Your task to perform on an android device: Open battery settings Image 0: 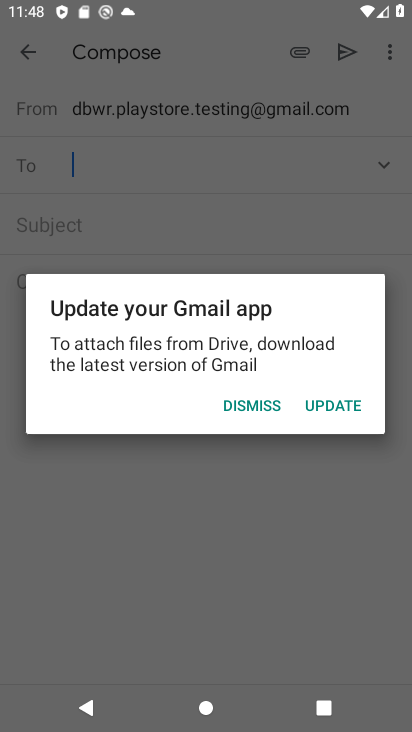
Step 0: press home button
Your task to perform on an android device: Open battery settings Image 1: 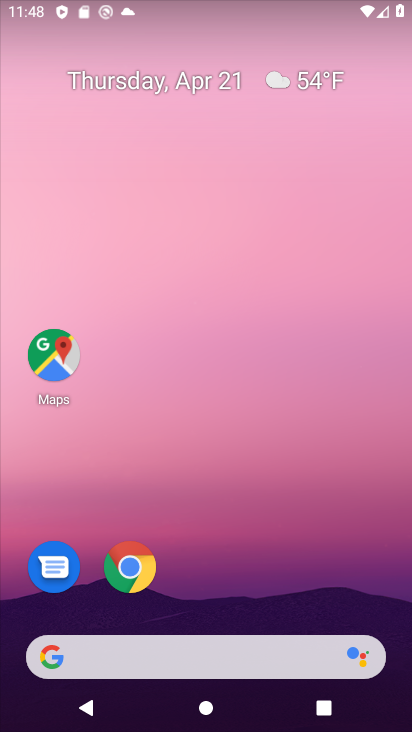
Step 1: drag from (235, 475) to (286, 124)
Your task to perform on an android device: Open battery settings Image 2: 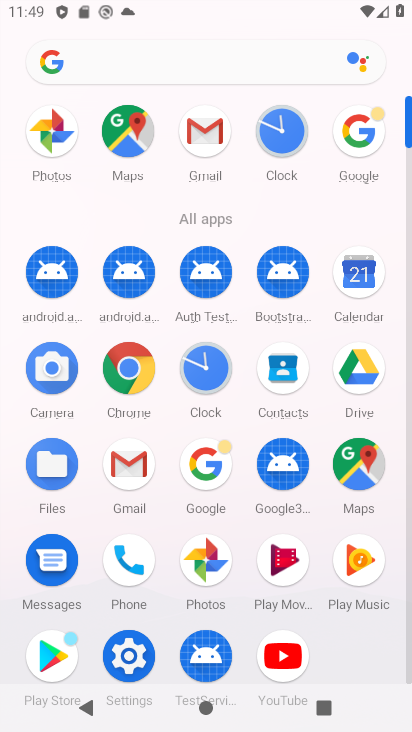
Step 2: click (141, 648)
Your task to perform on an android device: Open battery settings Image 3: 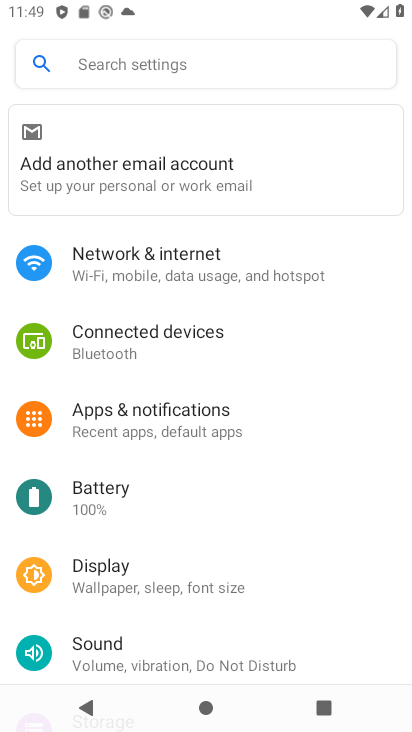
Step 3: click (238, 490)
Your task to perform on an android device: Open battery settings Image 4: 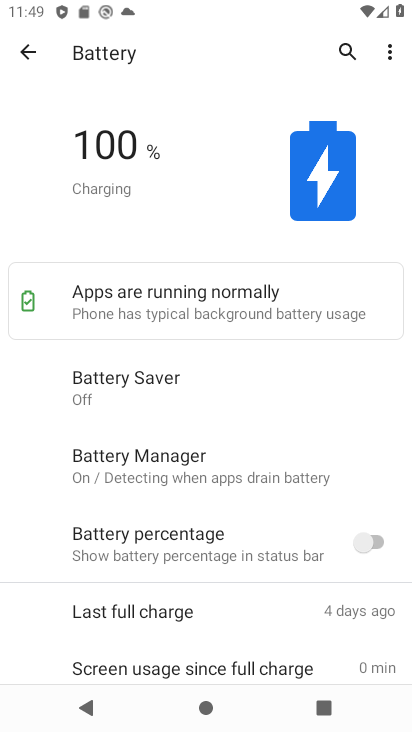
Step 4: task complete